Your task to perform on an android device: turn off javascript in the chrome app Image 0: 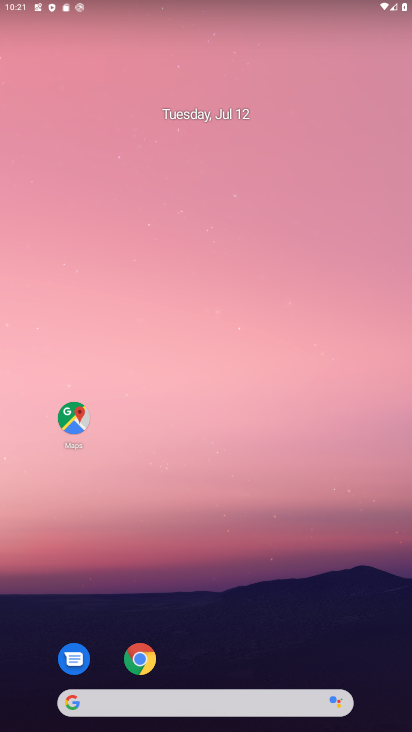
Step 0: click (127, 655)
Your task to perform on an android device: turn off javascript in the chrome app Image 1: 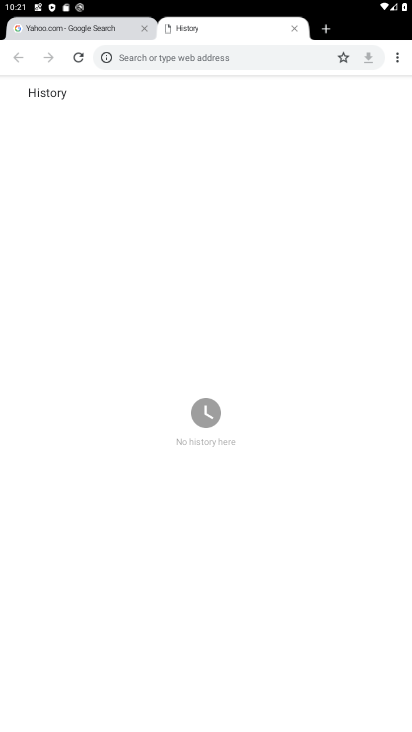
Step 1: click (140, 654)
Your task to perform on an android device: turn off javascript in the chrome app Image 2: 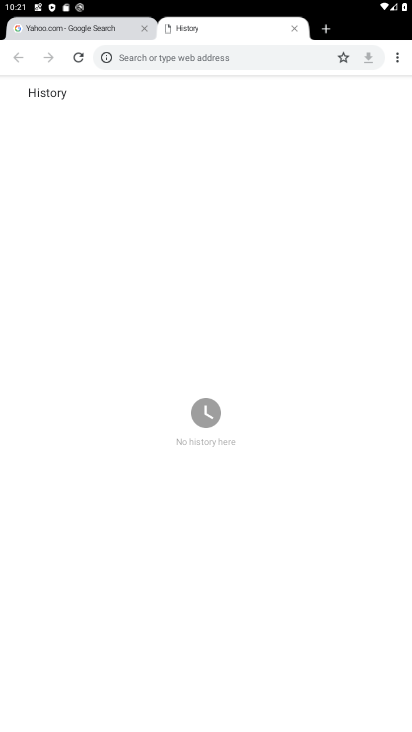
Step 2: click (398, 52)
Your task to perform on an android device: turn off javascript in the chrome app Image 3: 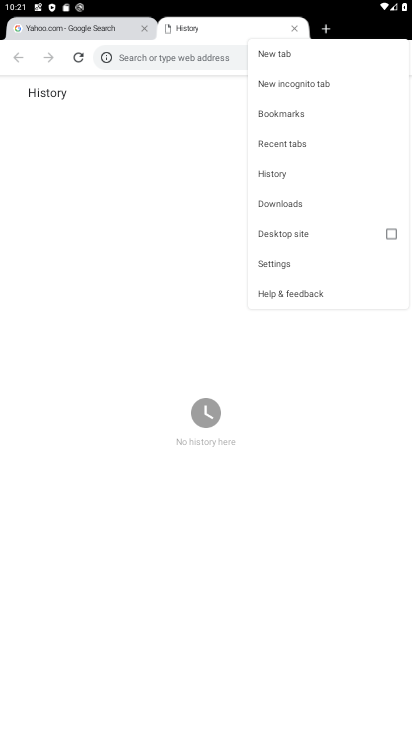
Step 3: click (282, 262)
Your task to perform on an android device: turn off javascript in the chrome app Image 4: 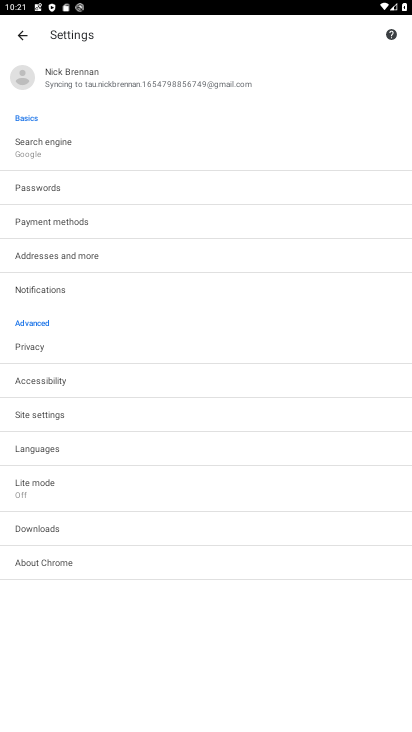
Step 4: click (33, 418)
Your task to perform on an android device: turn off javascript in the chrome app Image 5: 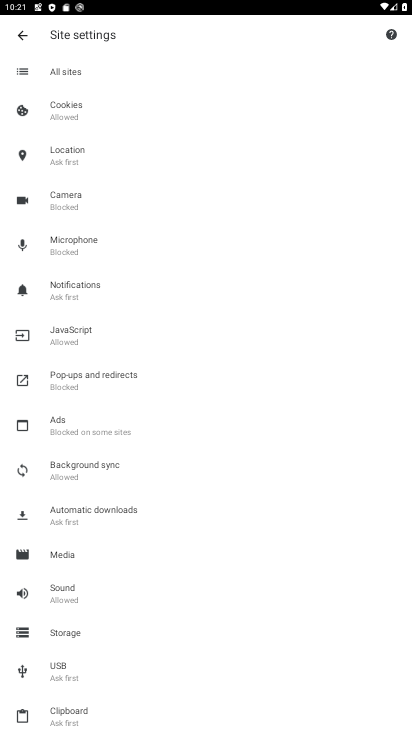
Step 5: click (54, 331)
Your task to perform on an android device: turn off javascript in the chrome app Image 6: 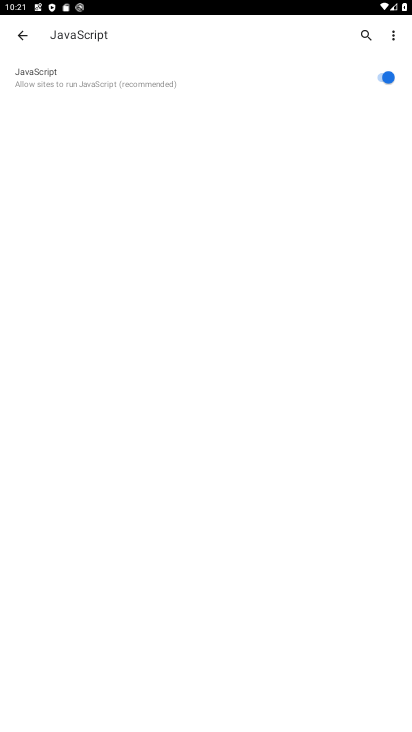
Step 6: click (384, 81)
Your task to perform on an android device: turn off javascript in the chrome app Image 7: 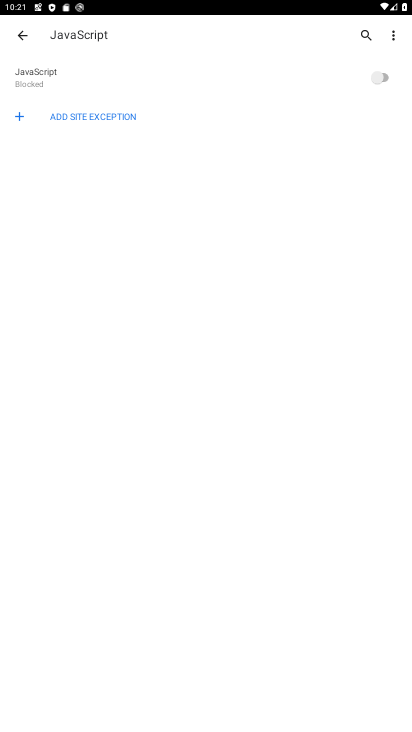
Step 7: task complete